Your task to perform on an android device: Is it going to rain tomorrow? Image 0: 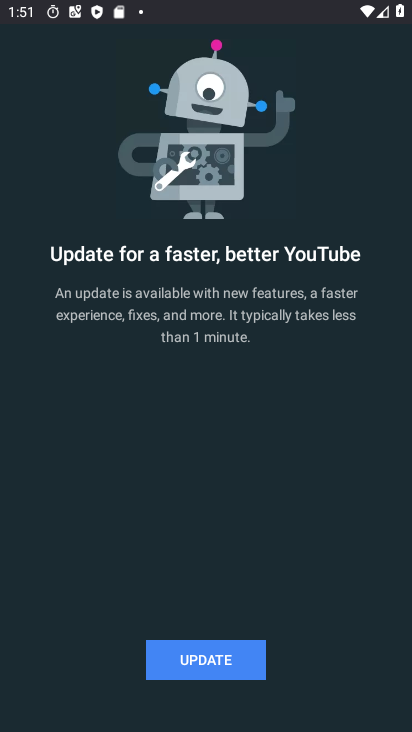
Step 0: press home button
Your task to perform on an android device: Is it going to rain tomorrow? Image 1: 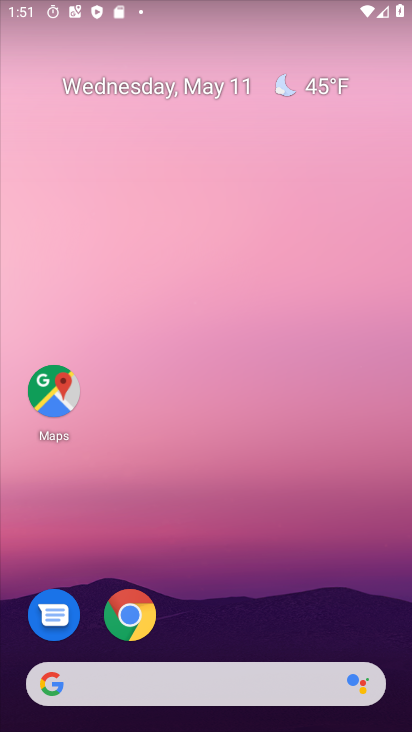
Step 1: click (321, 94)
Your task to perform on an android device: Is it going to rain tomorrow? Image 2: 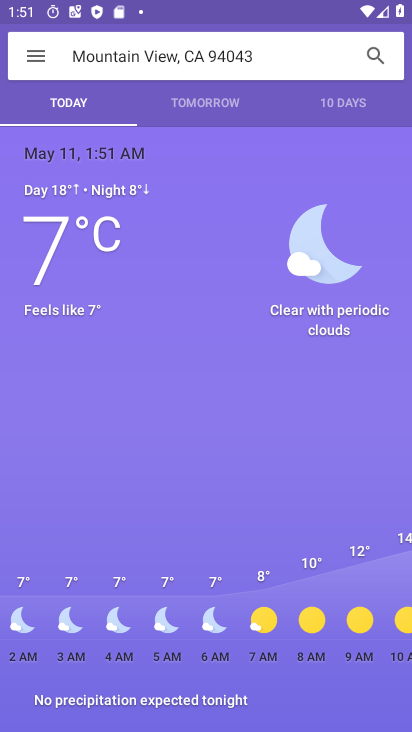
Step 2: click (165, 100)
Your task to perform on an android device: Is it going to rain tomorrow? Image 3: 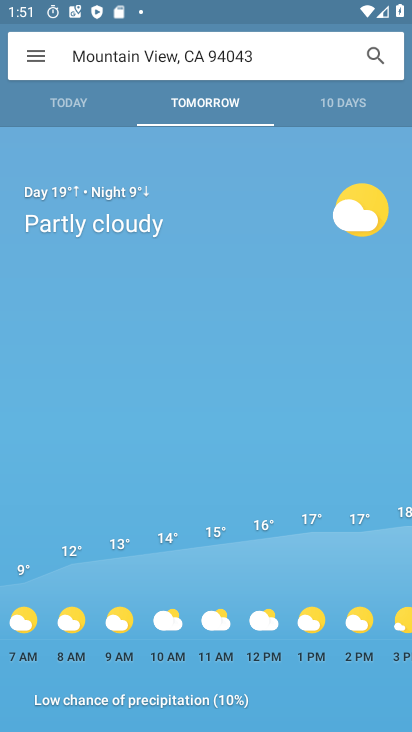
Step 3: task complete